Your task to perform on an android device: find photos in the google photos app Image 0: 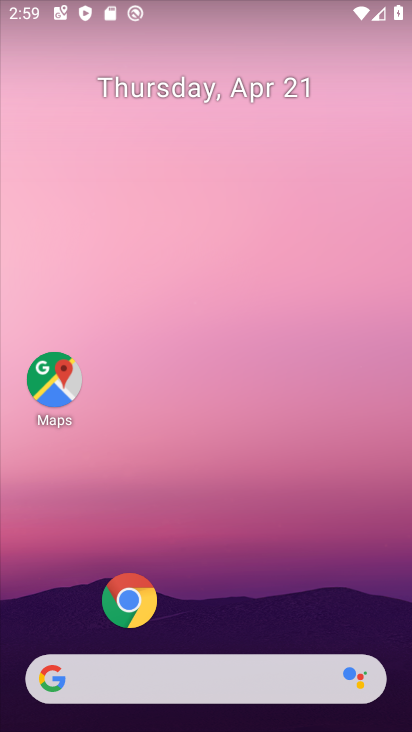
Step 0: drag from (218, 558) to (247, 274)
Your task to perform on an android device: find photos in the google photos app Image 1: 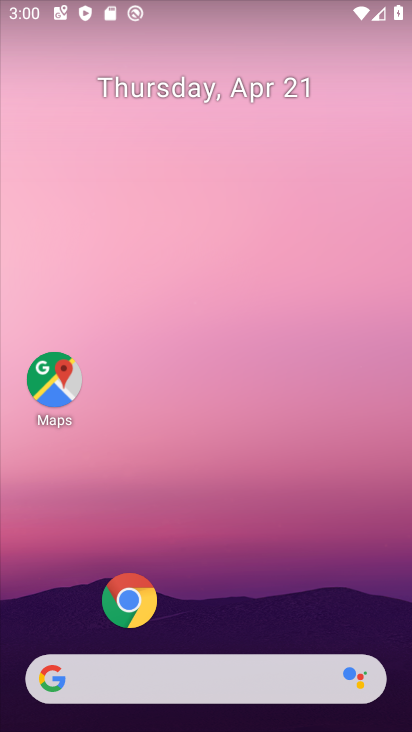
Step 1: drag from (216, 607) to (99, 35)
Your task to perform on an android device: find photos in the google photos app Image 2: 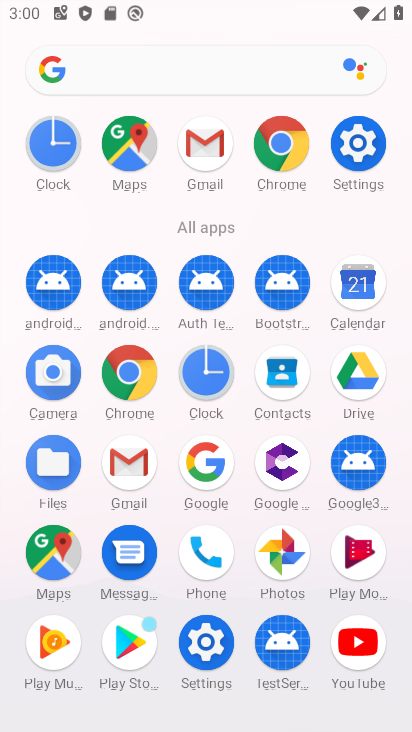
Step 2: click (279, 559)
Your task to perform on an android device: find photos in the google photos app Image 3: 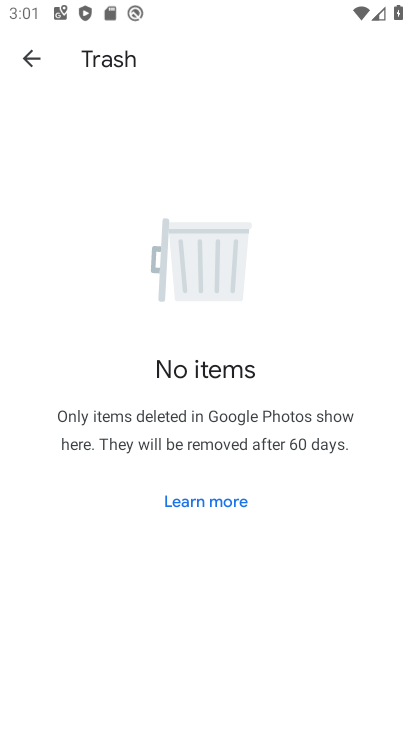
Step 3: click (20, 60)
Your task to perform on an android device: find photos in the google photos app Image 4: 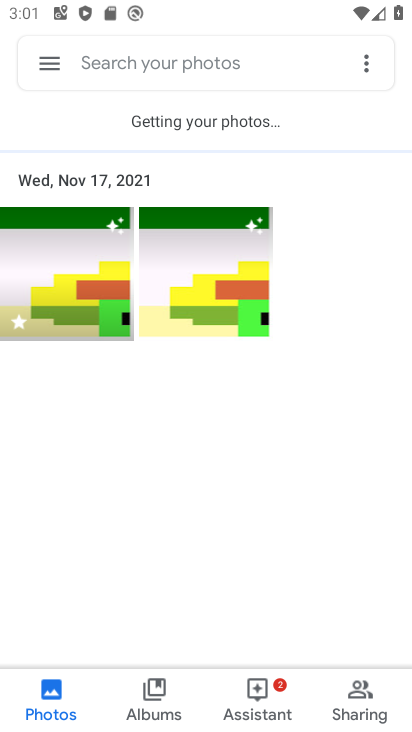
Step 4: click (26, 311)
Your task to perform on an android device: find photos in the google photos app Image 5: 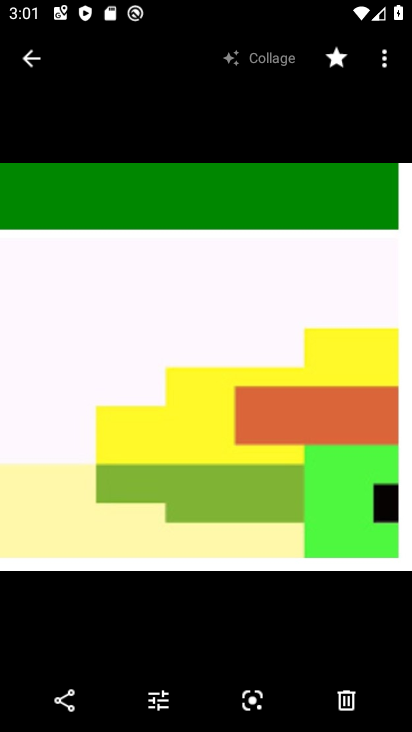
Step 5: task complete